Your task to perform on an android device: toggle improve location accuracy Image 0: 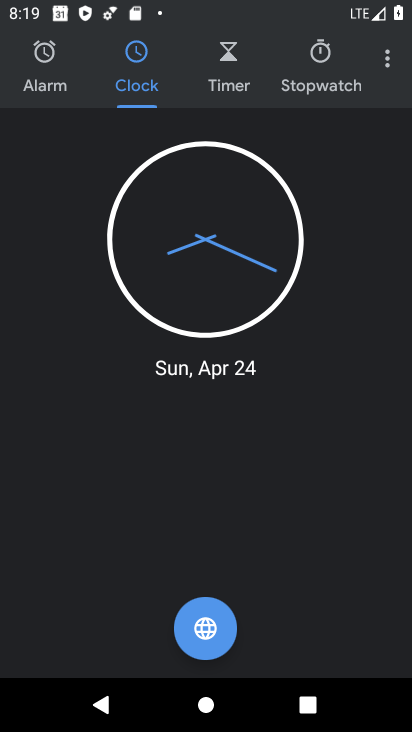
Step 0: press home button
Your task to perform on an android device: toggle improve location accuracy Image 1: 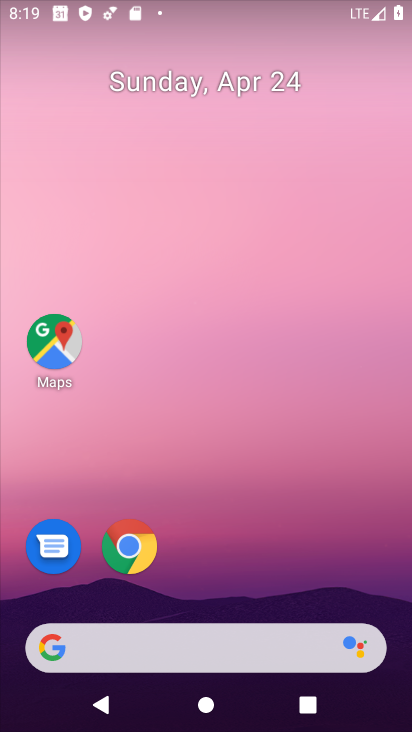
Step 1: drag from (274, 526) to (224, 161)
Your task to perform on an android device: toggle improve location accuracy Image 2: 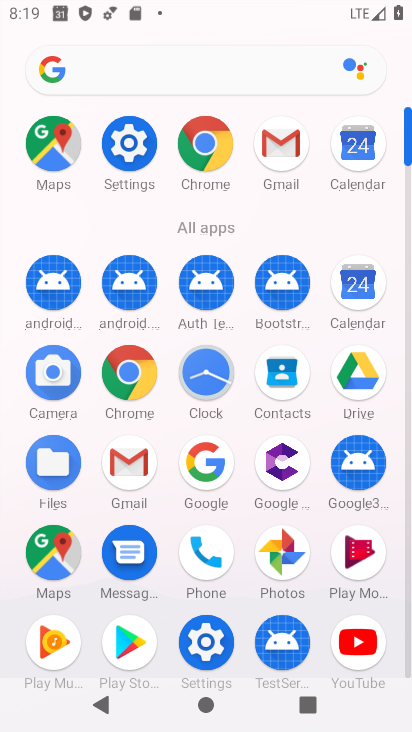
Step 2: click (143, 144)
Your task to perform on an android device: toggle improve location accuracy Image 3: 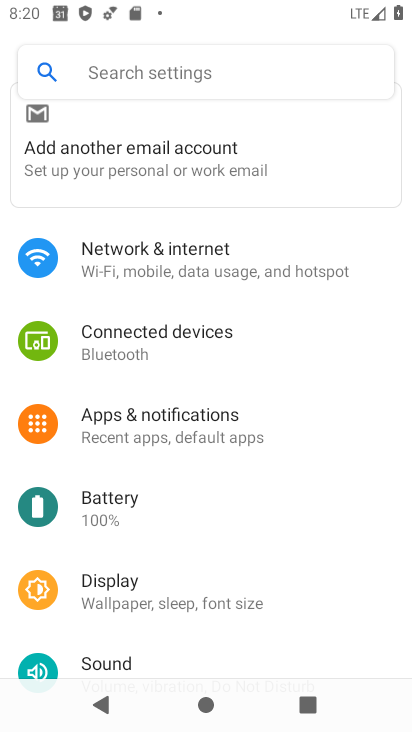
Step 3: drag from (158, 587) to (137, 237)
Your task to perform on an android device: toggle improve location accuracy Image 4: 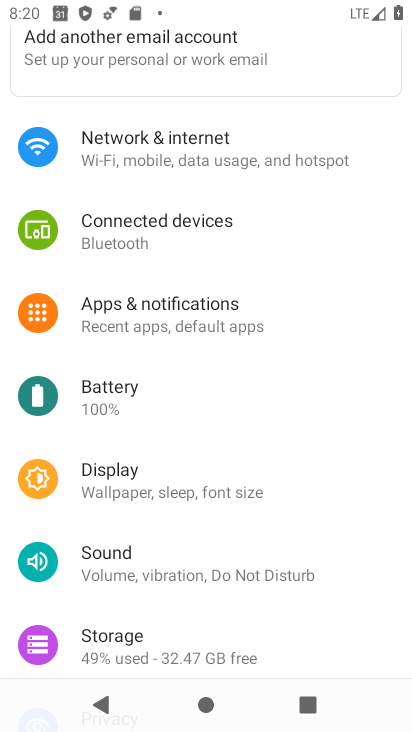
Step 4: drag from (170, 628) to (145, 214)
Your task to perform on an android device: toggle improve location accuracy Image 5: 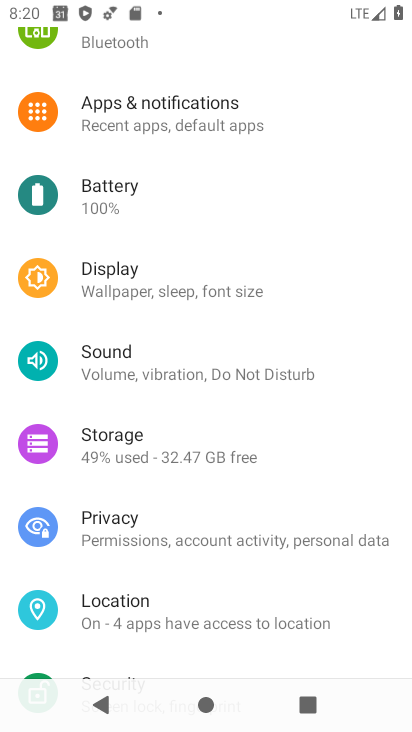
Step 5: click (143, 586)
Your task to perform on an android device: toggle improve location accuracy Image 6: 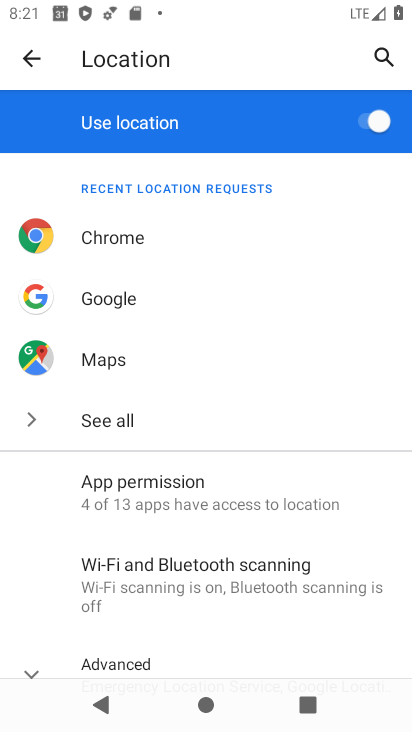
Step 6: drag from (192, 544) to (186, 157)
Your task to perform on an android device: toggle improve location accuracy Image 7: 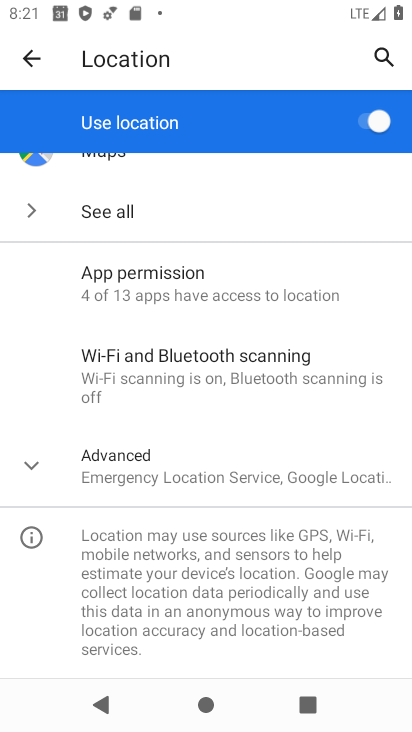
Step 7: click (165, 480)
Your task to perform on an android device: toggle improve location accuracy Image 8: 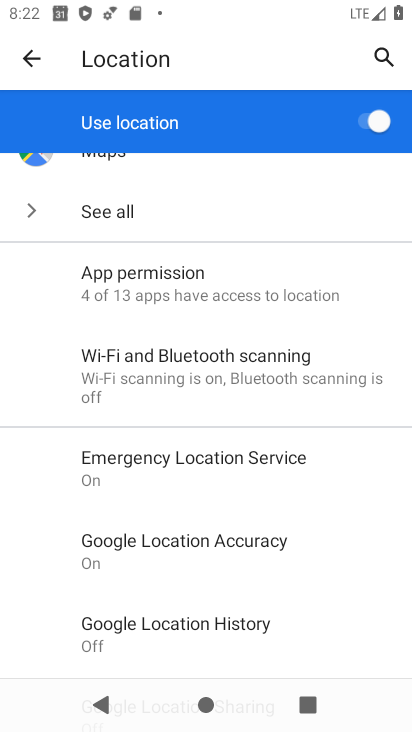
Step 8: click (257, 568)
Your task to perform on an android device: toggle improve location accuracy Image 9: 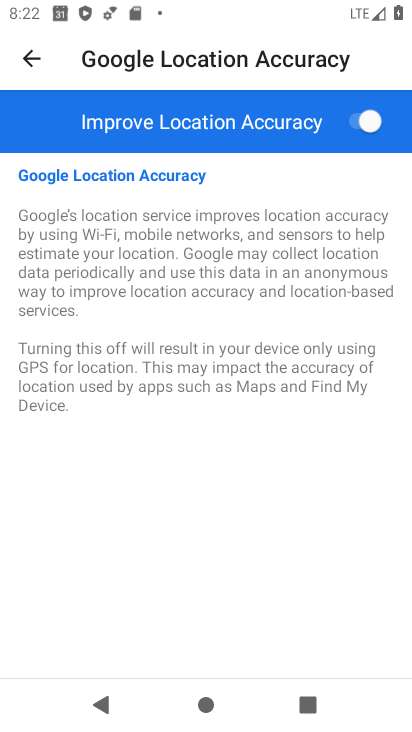
Step 9: click (360, 114)
Your task to perform on an android device: toggle improve location accuracy Image 10: 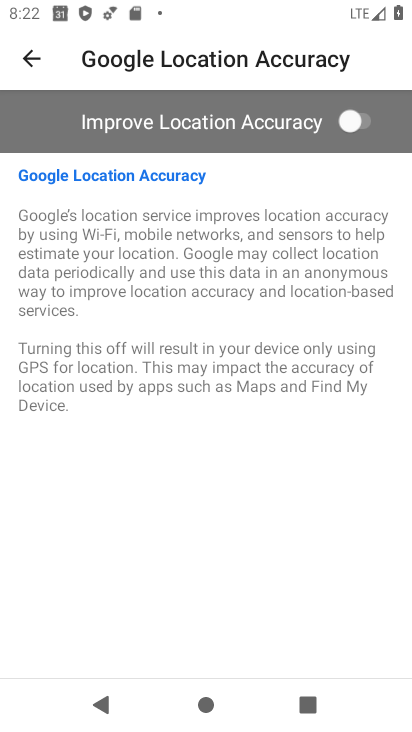
Step 10: task complete